Your task to perform on an android device: allow cookies in the chrome app Image 0: 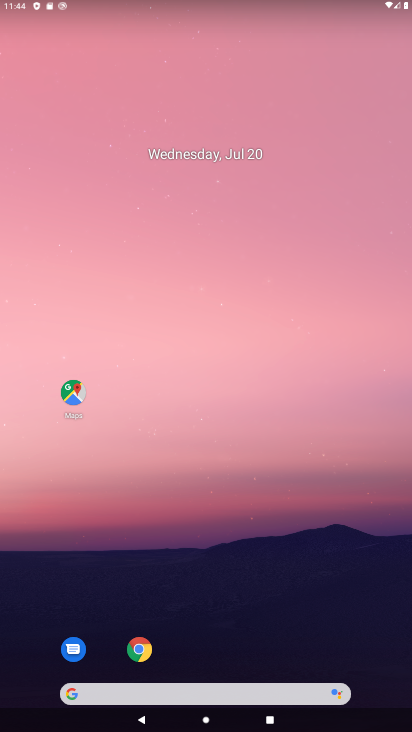
Step 0: press home button
Your task to perform on an android device: allow cookies in the chrome app Image 1: 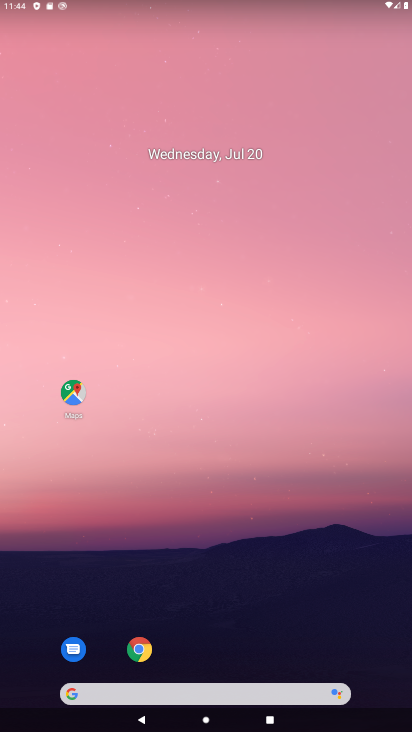
Step 1: drag from (260, 517) to (396, 99)
Your task to perform on an android device: allow cookies in the chrome app Image 2: 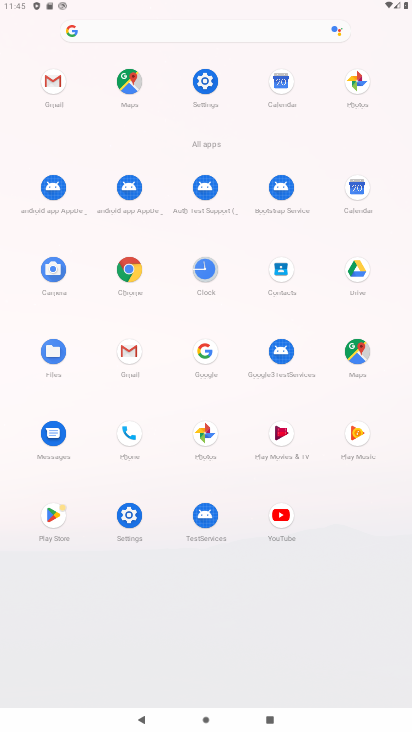
Step 2: click (147, 286)
Your task to perform on an android device: allow cookies in the chrome app Image 3: 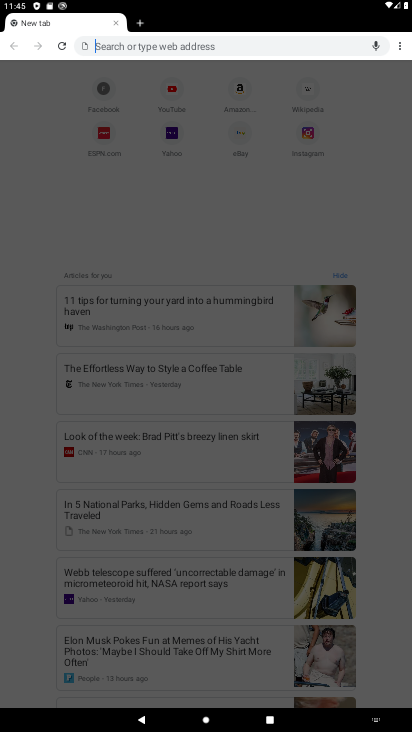
Step 3: click (147, 286)
Your task to perform on an android device: allow cookies in the chrome app Image 4: 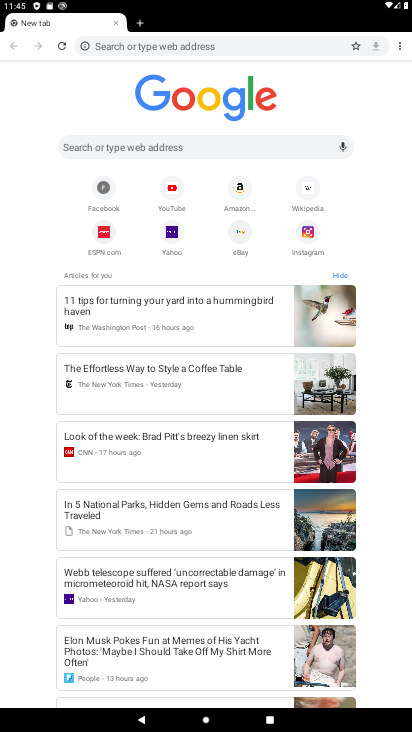
Step 4: drag from (400, 39) to (299, 242)
Your task to perform on an android device: allow cookies in the chrome app Image 5: 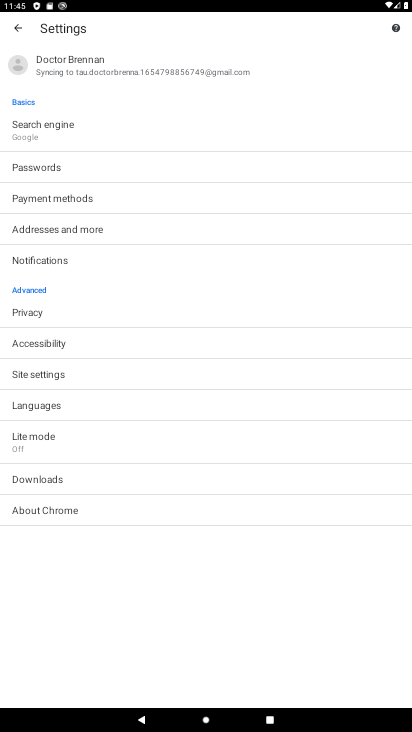
Step 5: click (65, 379)
Your task to perform on an android device: allow cookies in the chrome app Image 6: 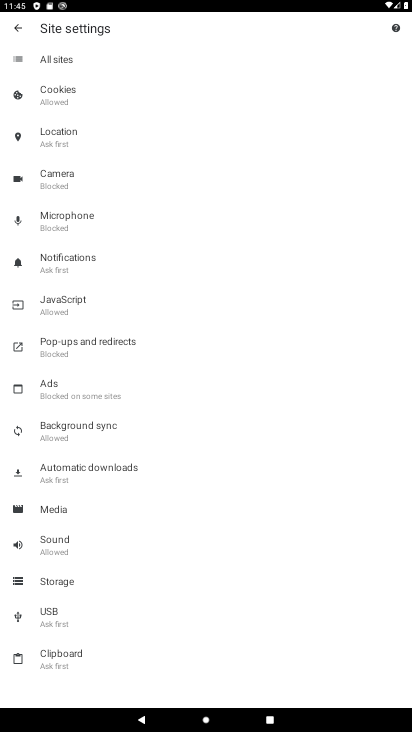
Step 6: click (39, 103)
Your task to perform on an android device: allow cookies in the chrome app Image 7: 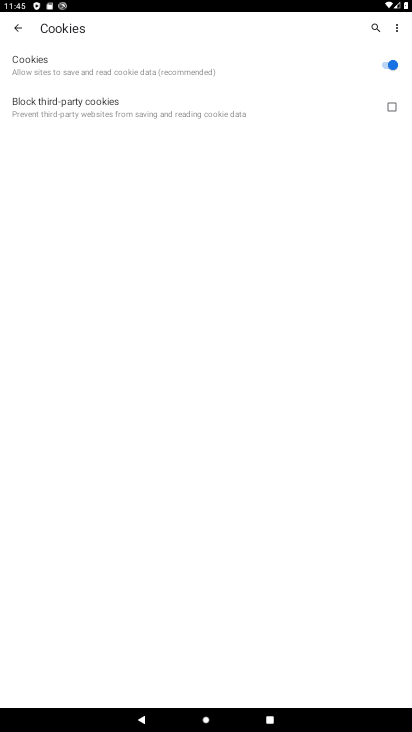
Step 7: task complete